Your task to perform on an android device: Open Google Chrome and open the bookmarks view Image 0: 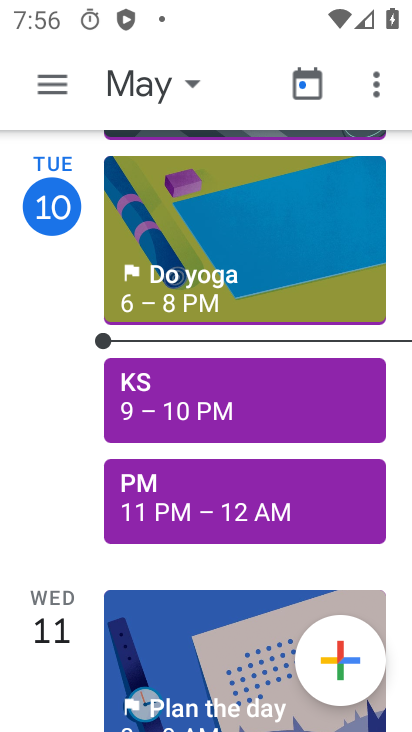
Step 0: press home button
Your task to perform on an android device: Open Google Chrome and open the bookmarks view Image 1: 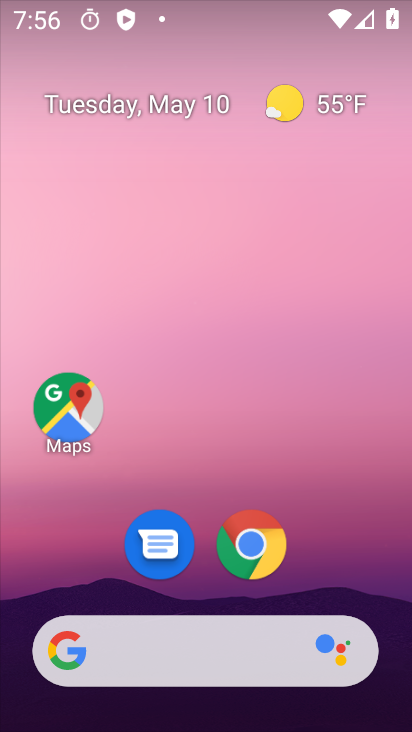
Step 1: click (250, 542)
Your task to perform on an android device: Open Google Chrome and open the bookmarks view Image 2: 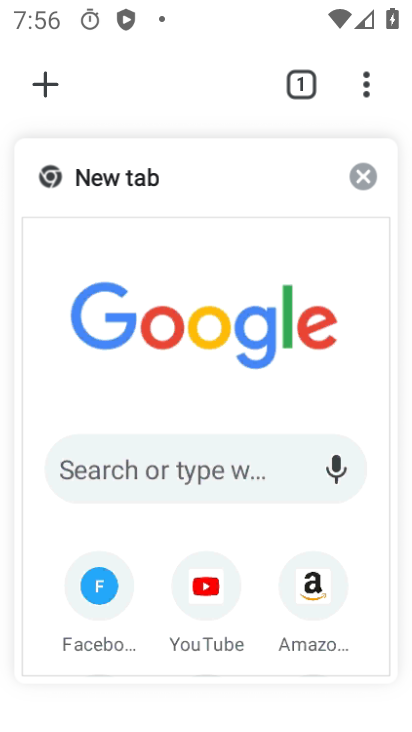
Step 2: click (372, 79)
Your task to perform on an android device: Open Google Chrome and open the bookmarks view Image 3: 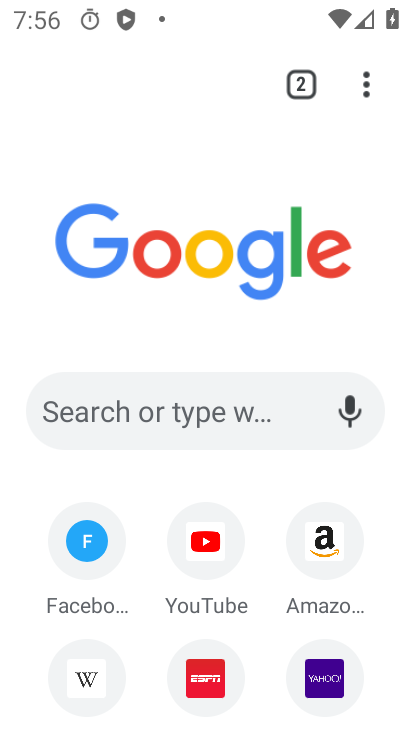
Step 3: click (366, 87)
Your task to perform on an android device: Open Google Chrome and open the bookmarks view Image 4: 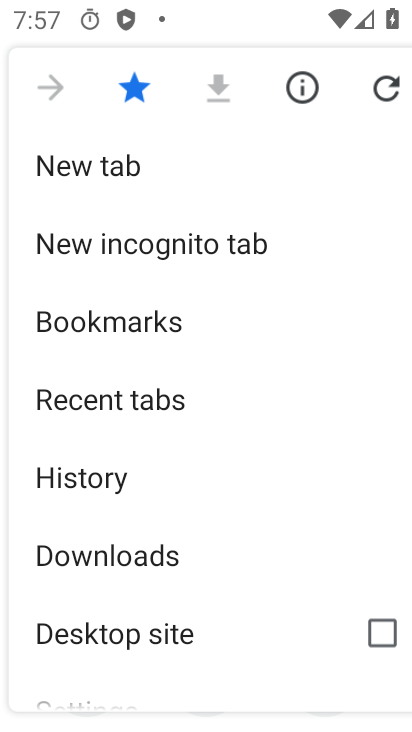
Step 4: click (157, 330)
Your task to perform on an android device: Open Google Chrome and open the bookmarks view Image 5: 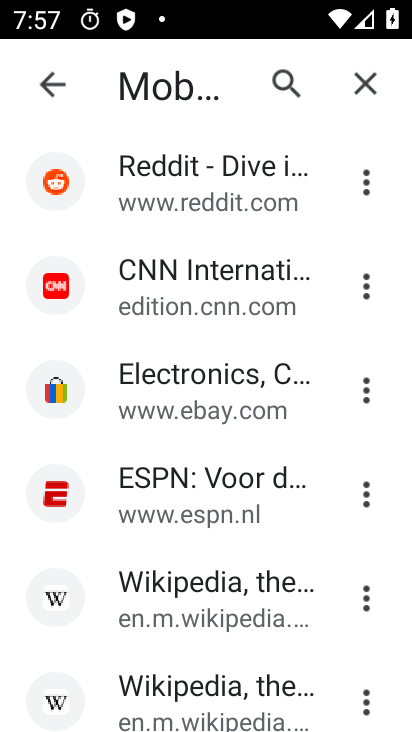
Step 5: task complete